Your task to perform on an android device: Check the weather Image 0: 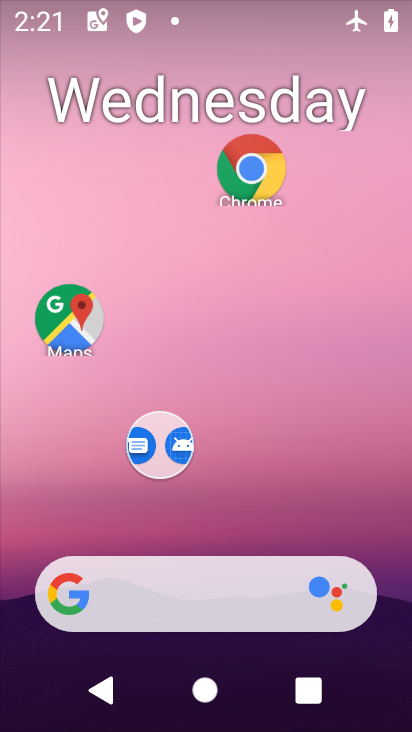
Step 0: click (269, 594)
Your task to perform on an android device: Check the weather Image 1: 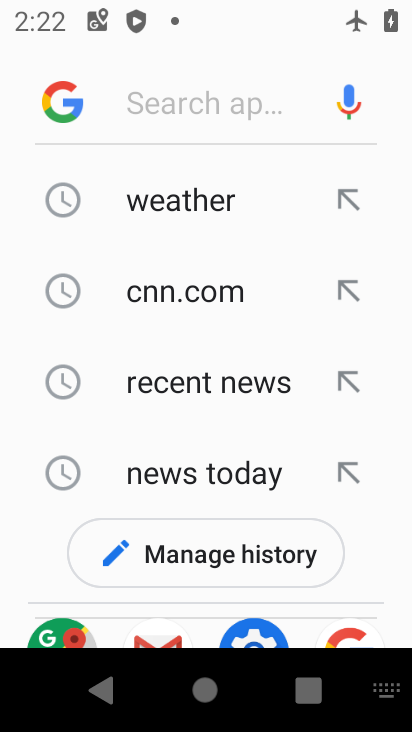
Step 1: click (285, 188)
Your task to perform on an android device: Check the weather Image 2: 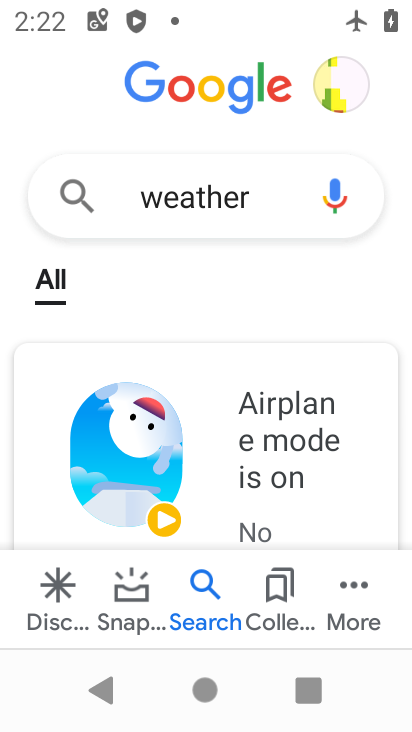
Step 2: task complete